Your task to perform on an android device: What's the weather going to be tomorrow? Image 0: 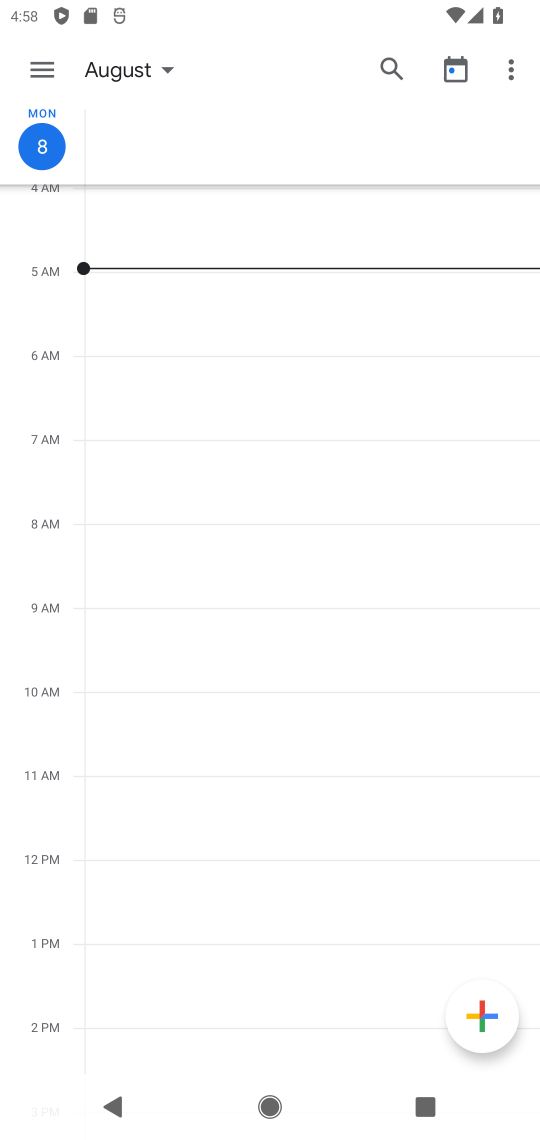
Step 0: press home button
Your task to perform on an android device: What's the weather going to be tomorrow? Image 1: 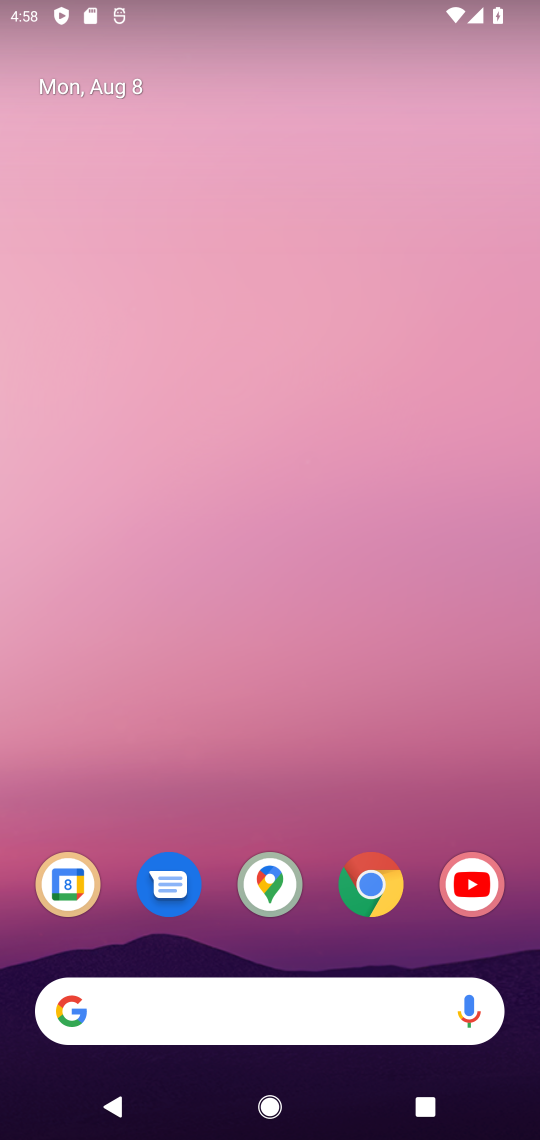
Step 1: drag from (322, 839) to (314, 103)
Your task to perform on an android device: What's the weather going to be tomorrow? Image 2: 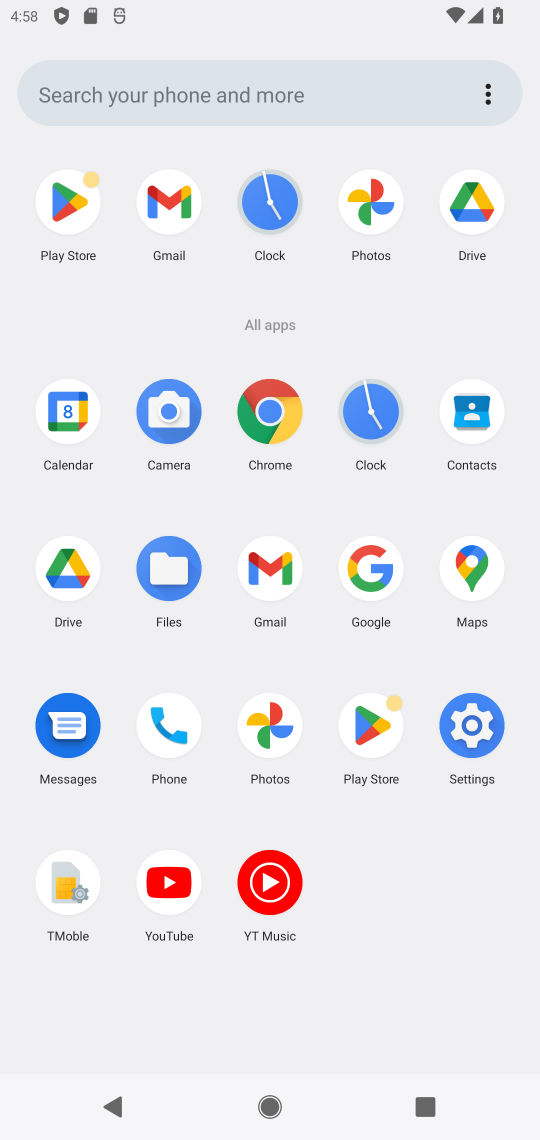
Step 2: click (287, 408)
Your task to perform on an android device: What's the weather going to be tomorrow? Image 3: 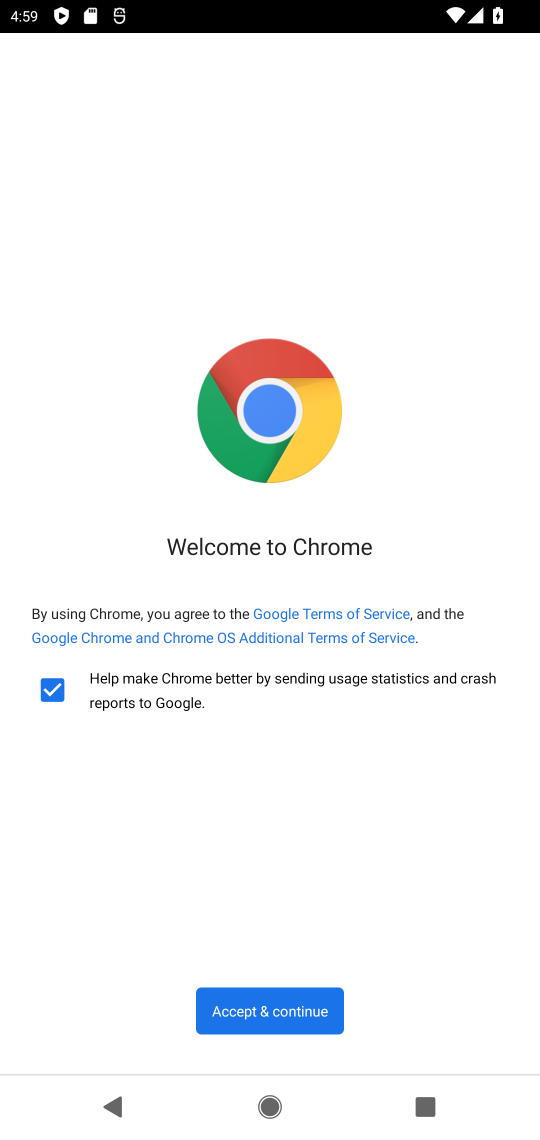
Step 3: click (235, 1013)
Your task to perform on an android device: What's the weather going to be tomorrow? Image 4: 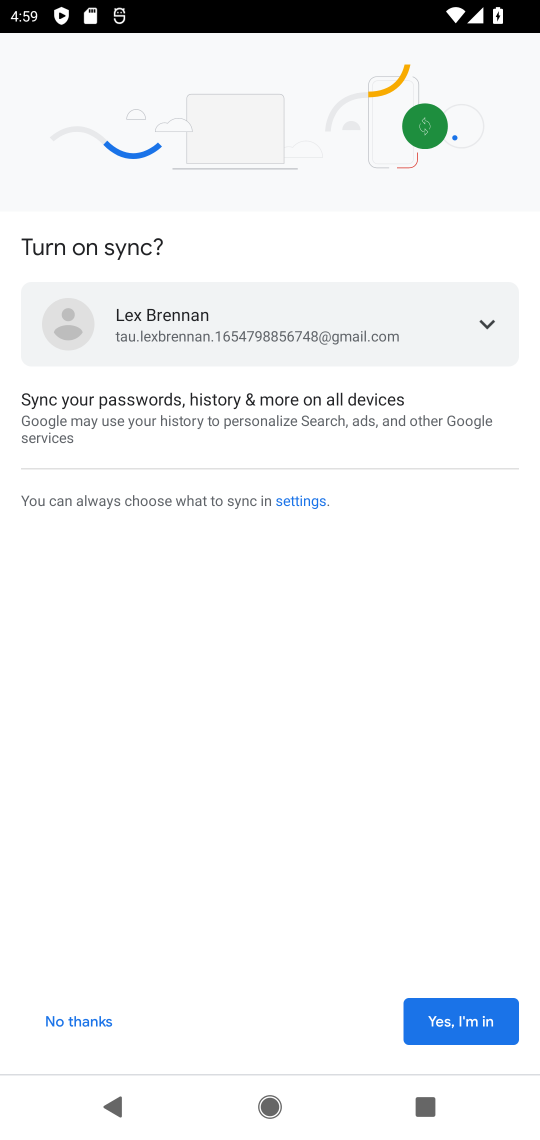
Step 4: click (467, 1040)
Your task to perform on an android device: What's the weather going to be tomorrow? Image 5: 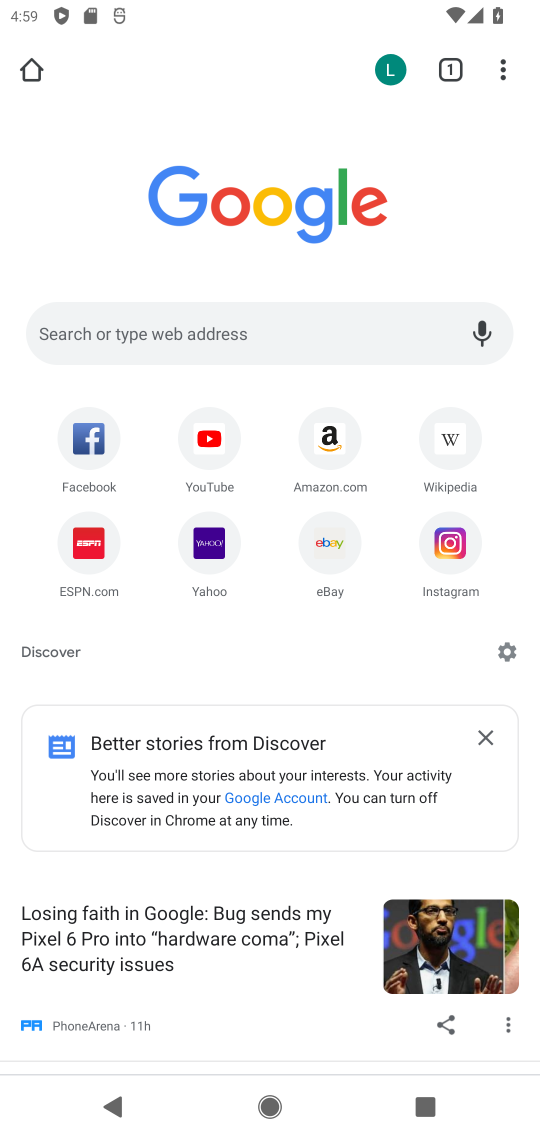
Step 5: click (46, 344)
Your task to perform on an android device: What's the weather going to be tomorrow? Image 6: 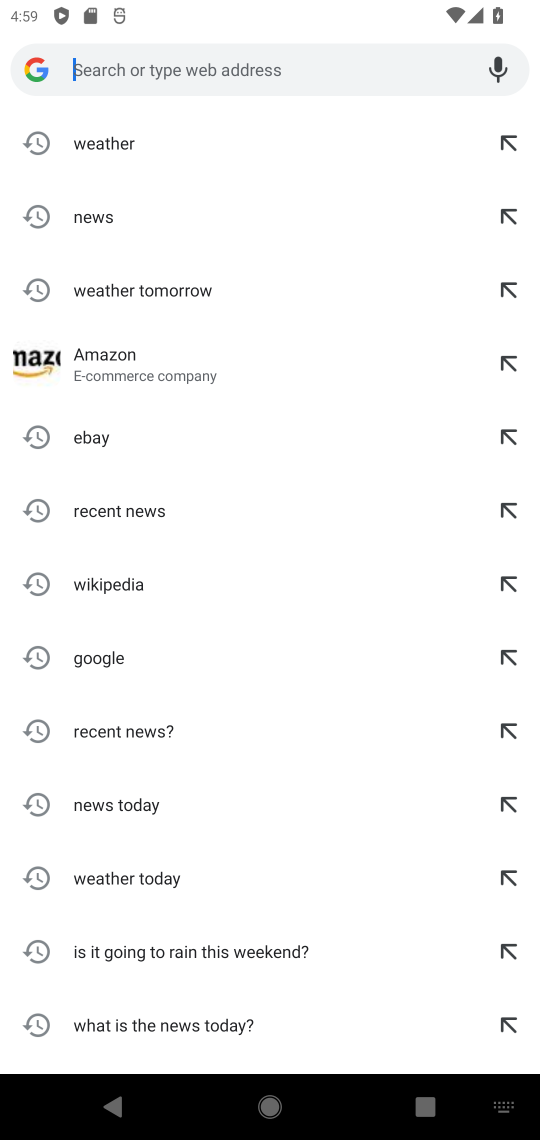
Step 6: type "What's the weather going to be tomorrow?"
Your task to perform on an android device: What's the weather going to be tomorrow? Image 7: 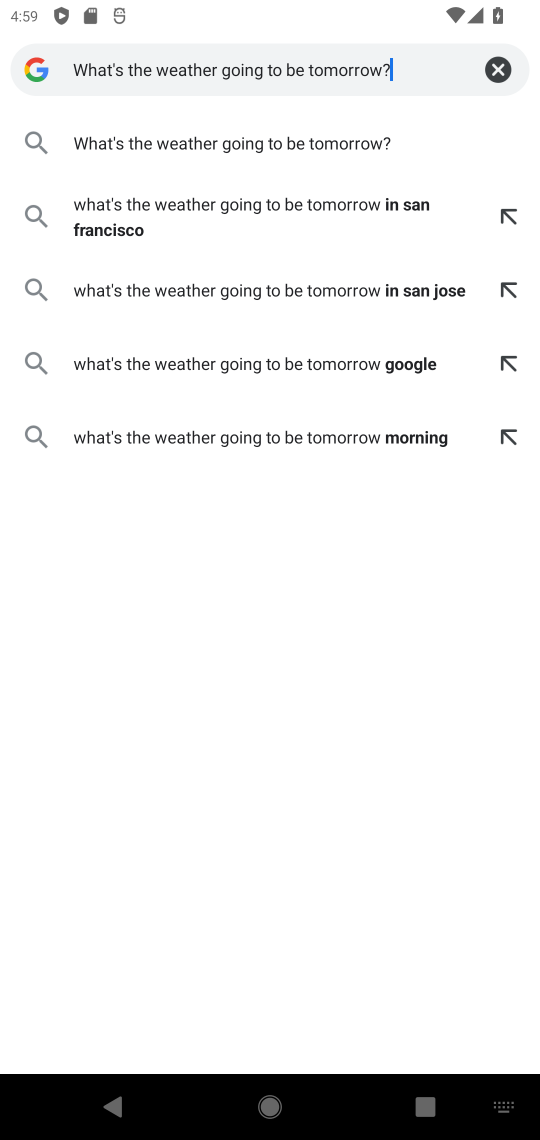
Step 7: click (145, 136)
Your task to perform on an android device: What's the weather going to be tomorrow? Image 8: 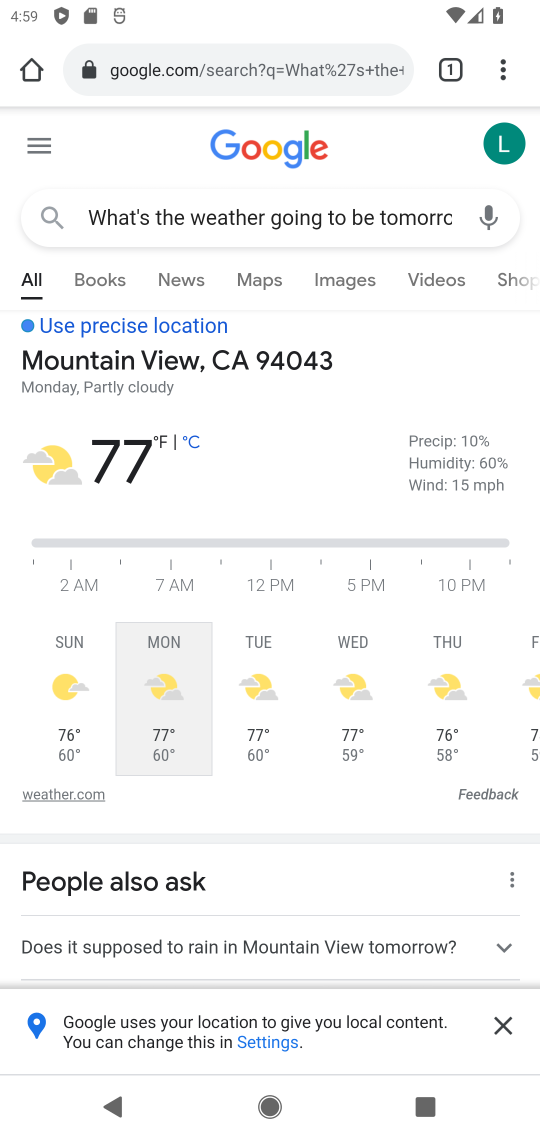
Step 8: task complete